Your task to perform on an android device: Do I have any events tomorrow? Image 0: 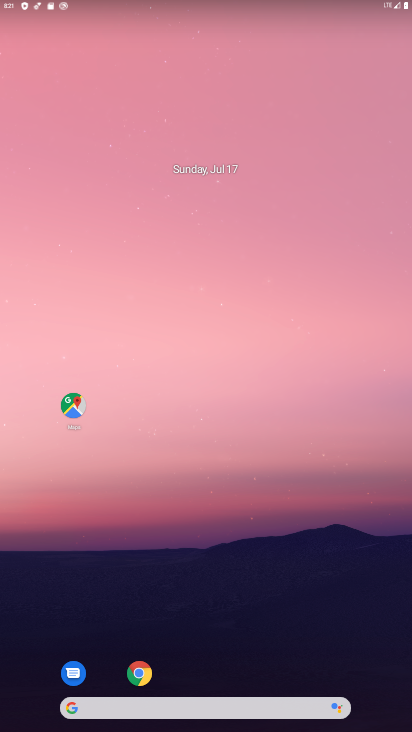
Step 0: click (281, 658)
Your task to perform on an android device: Do I have any events tomorrow? Image 1: 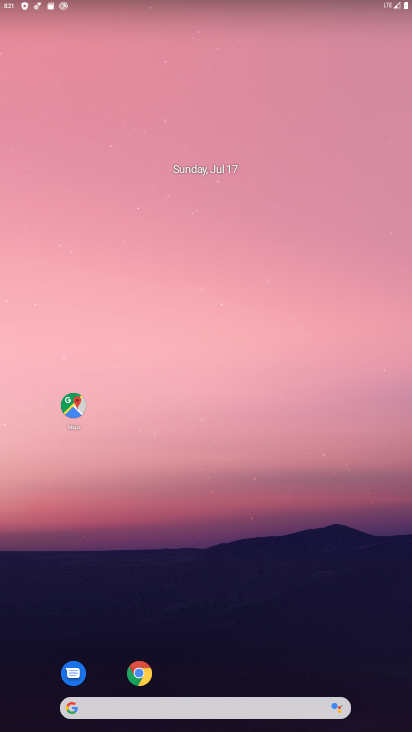
Step 1: click (281, 658)
Your task to perform on an android device: Do I have any events tomorrow? Image 2: 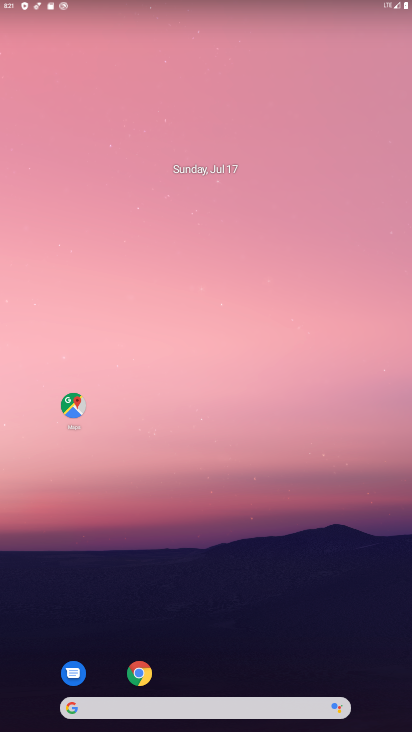
Step 2: drag from (281, 658) to (221, 131)
Your task to perform on an android device: Do I have any events tomorrow? Image 3: 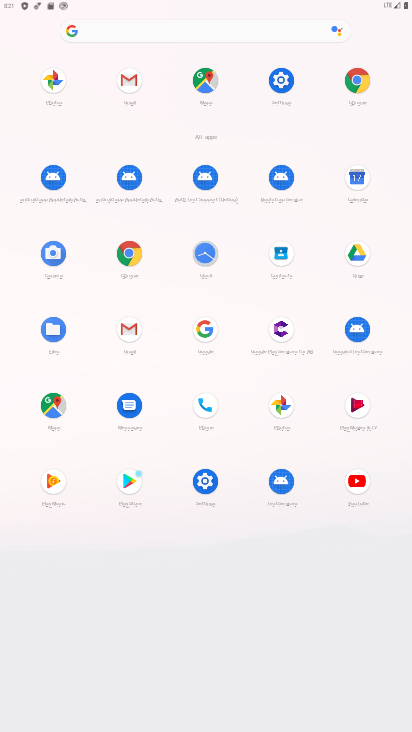
Step 3: click (360, 176)
Your task to perform on an android device: Do I have any events tomorrow? Image 4: 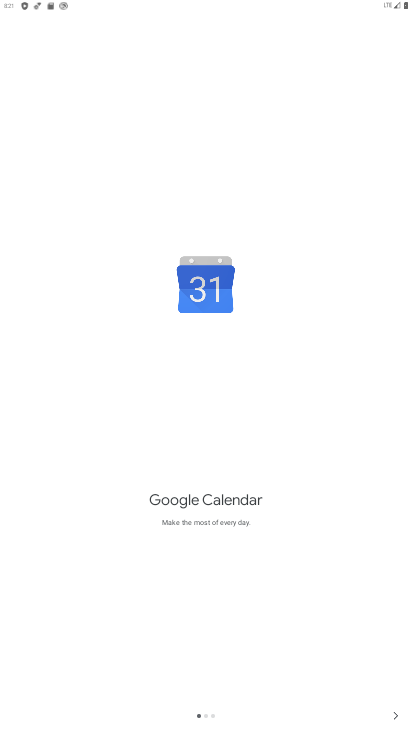
Step 4: click (394, 717)
Your task to perform on an android device: Do I have any events tomorrow? Image 5: 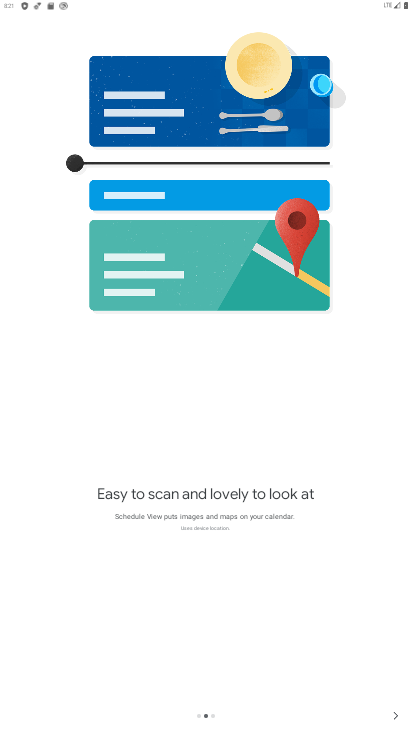
Step 5: click (394, 717)
Your task to perform on an android device: Do I have any events tomorrow? Image 6: 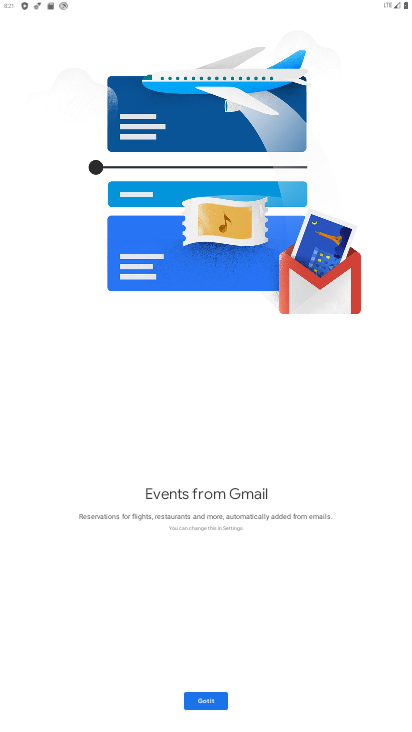
Step 6: click (394, 717)
Your task to perform on an android device: Do I have any events tomorrow? Image 7: 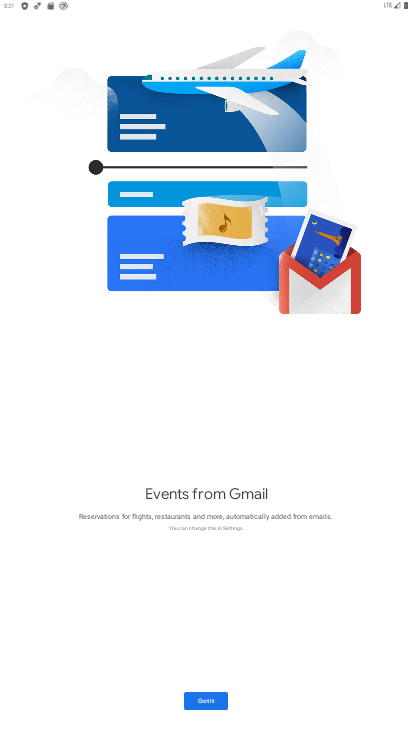
Step 7: click (210, 708)
Your task to perform on an android device: Do I have any events tomorrow? Image 8: 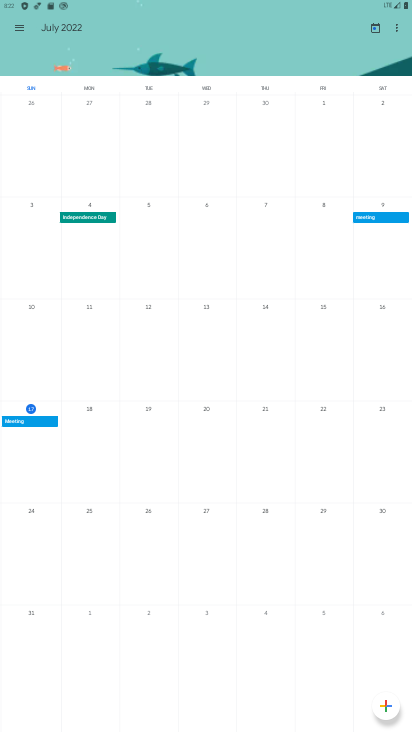
Step 8: click (18, 26)
Your task to perform on an android device: Do I have any events tomorrow? Image 9: 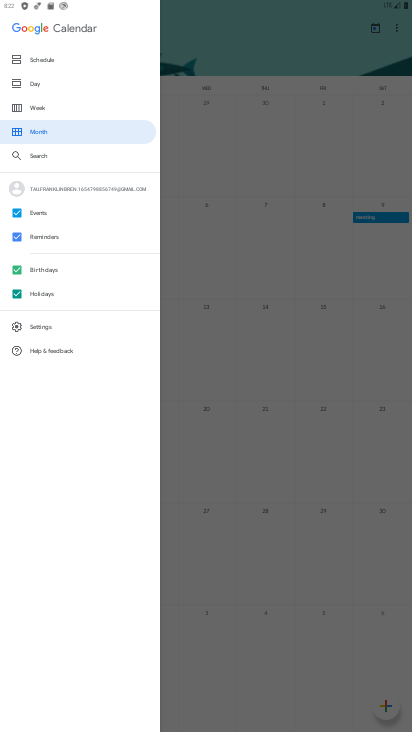
Step 9: click (29, 83)
Your task to perform on an android device: Do I have any events tomorrow? Image 10: 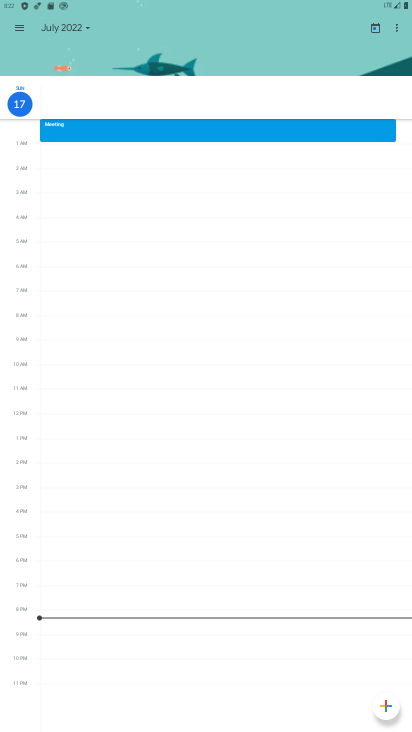
Step 10: click (78, 25)
Your task to perform on an android device: Do I have any events tomorrow? Image 11: 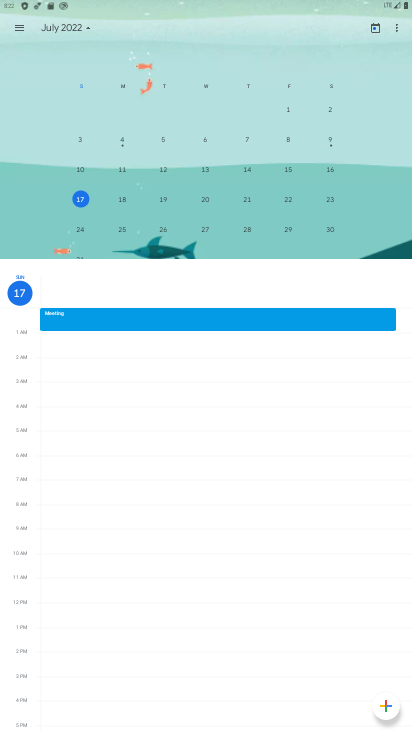
Step 11: click (124, 197)
Your task to perform on an android device: Do I have any events tomorrow? Image 12: 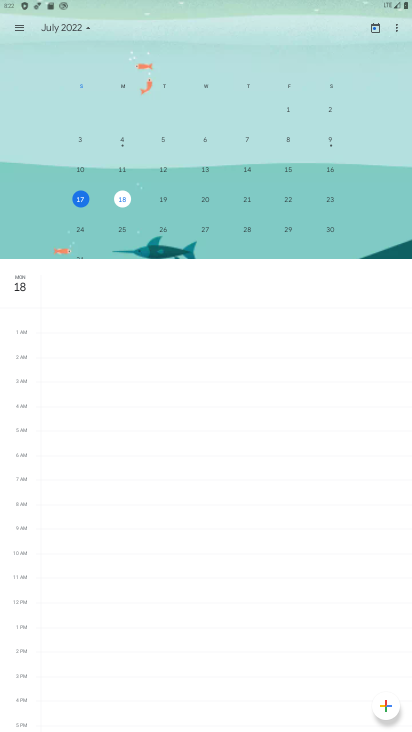
Step 12: task complete